Your task to perform on an android device: Search for vegetarian restaurants on Maps Image 0: 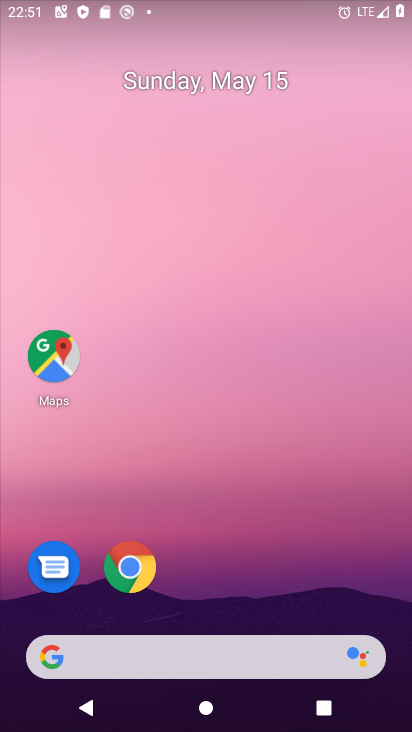
Step 0: click (46, 355)
Your task to perform on an android device: Search for vegetarian restaurants on Maps Image 1: 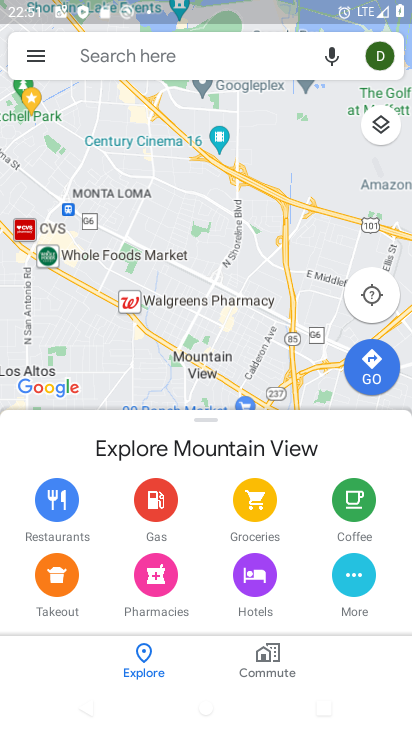
Step 1: click (113, 62)
Your task to perform on an android device: Search for vegetarian restaurants on Maps Image 2: 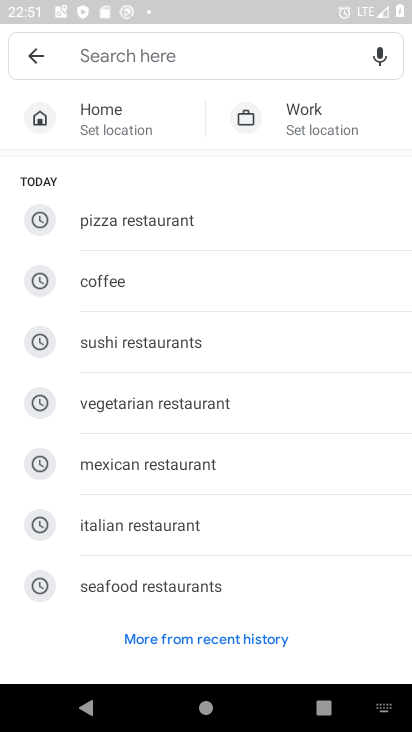
Step 2: click (193, 400)
Your task to perform on an android device: Search for vegetarian restaurants on Maps Image 3: 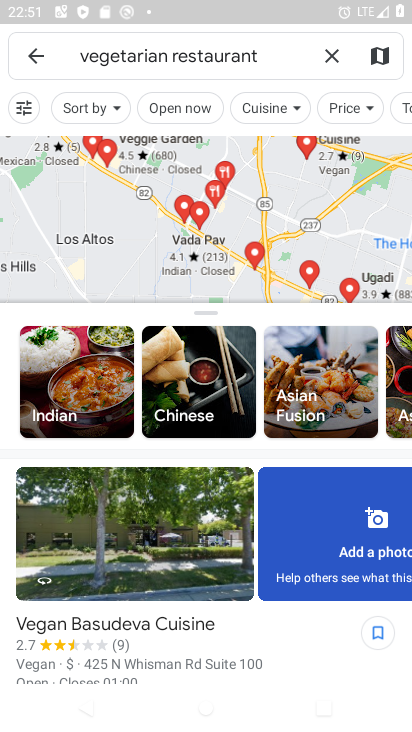
Step 3: task complete